Your task to perform on an android device: Go to notification settings Image 0: 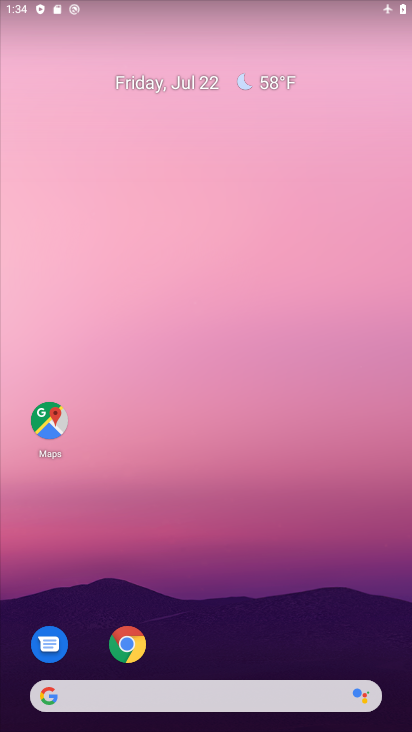
Step 0: drag from (212, 682) to (204, 291)
Your task to perform on an android device: Go to notification settings Image 1: 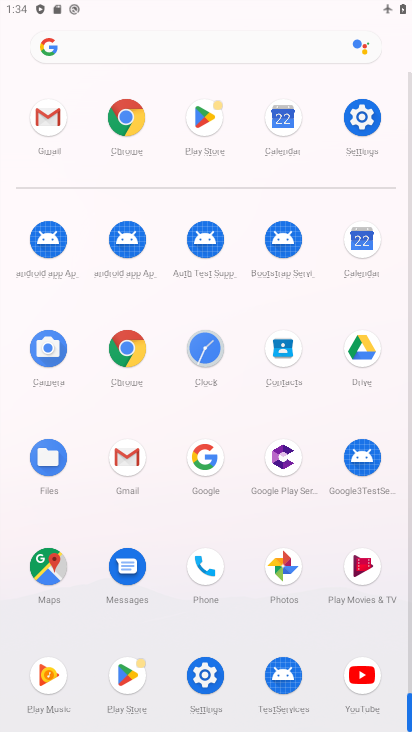
Step 1: click (375, 112)
Your task to perform on an android device: Go to notification settings Image 2: 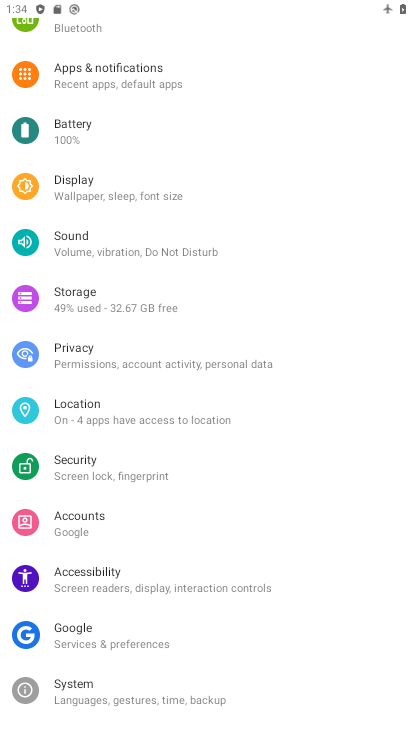
Step 2: click (104, 78)
Your task to perform on an android device: Go to notification settings Image 3: 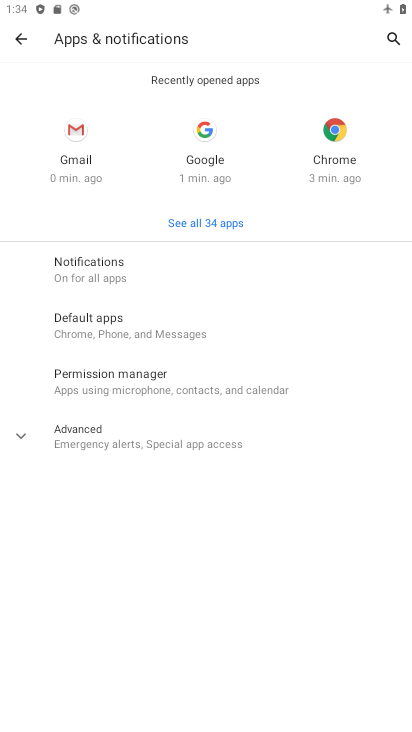
Step 3: click (105, 444)
Your task to perform on an android device: Go to notification settings Image 4: 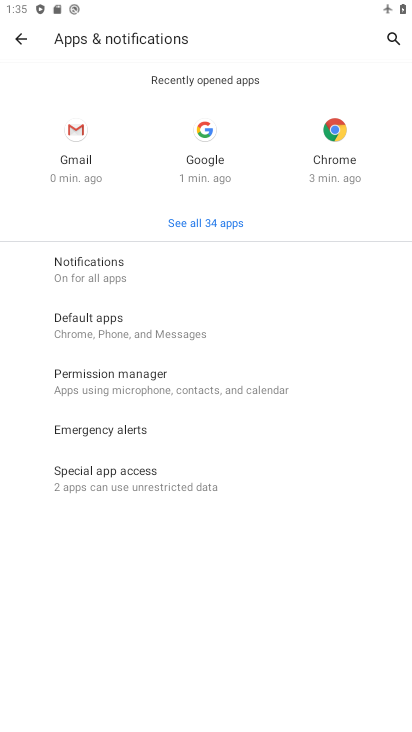
Step 4: click (142, 267)
Your task to perform on an android device: Go to notification settings Image 5: 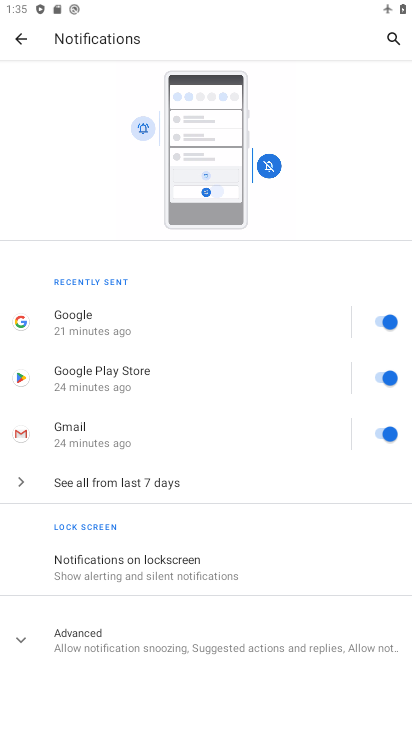
Step 5: task complete